Your task to perform on an android device: change text size in settings app Image 0: 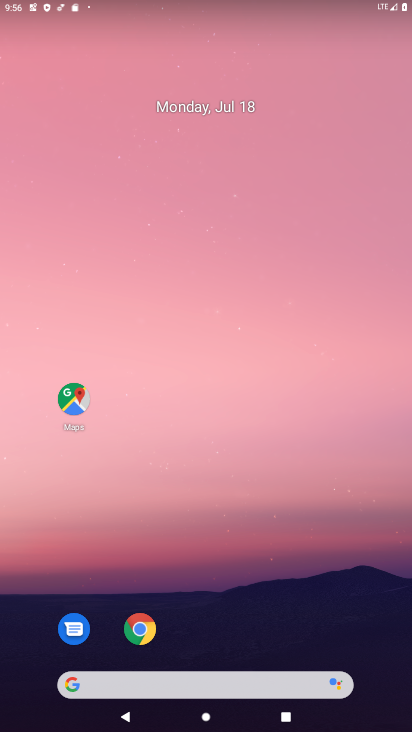
Step 0: drag from (203, 681) to (166, 210)
Your task to perform on an android device: change text size in settings app Image 1: 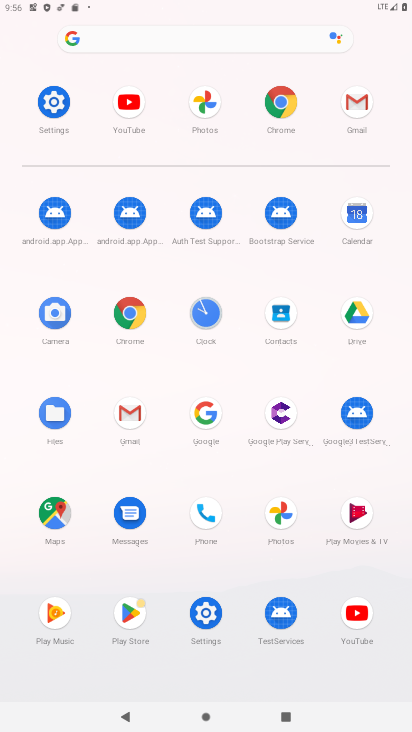
Step 1: click (216, 620)
Your task to perform on an android device: change text size in settings app Image 2: 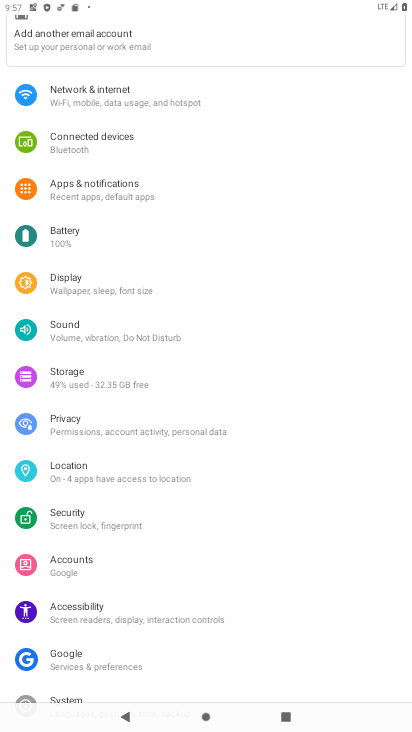
Step 2: click (84, 293)
Your task to perform on an android device: change text size in settings app Image 3: 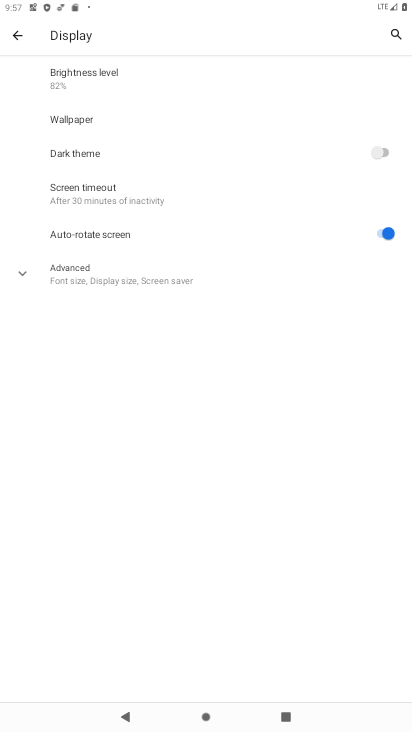
Step 3: click (115, 268)
Your task to perform on an android device: change text size in settings app Image 4: 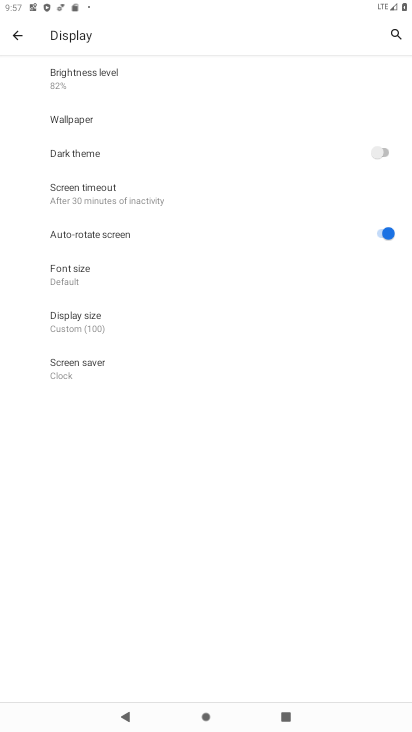
Step 4: click (82, 275)
Your task to perform on an android device: change text size in settings app Image 5: 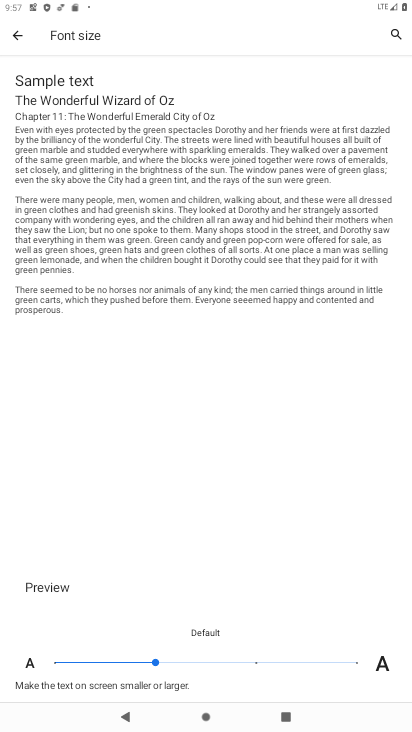
Step 5: click (358, 661)
Your task to perform on an android device: change text size in settings app Image 6: 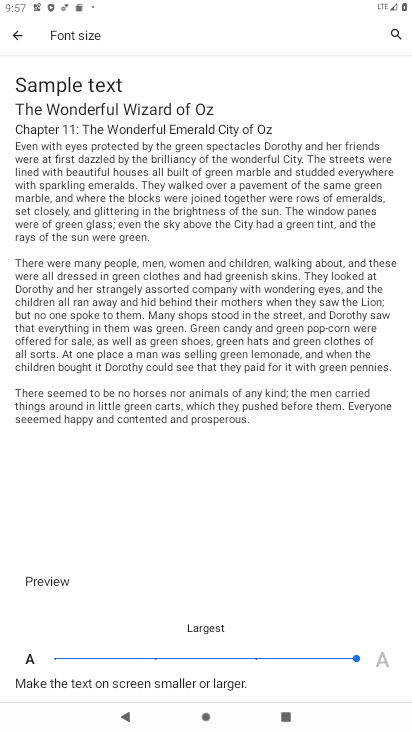
Step 6: task complete